Your task to perform on an android device: Is it going to rain tomorrow? Image 0: 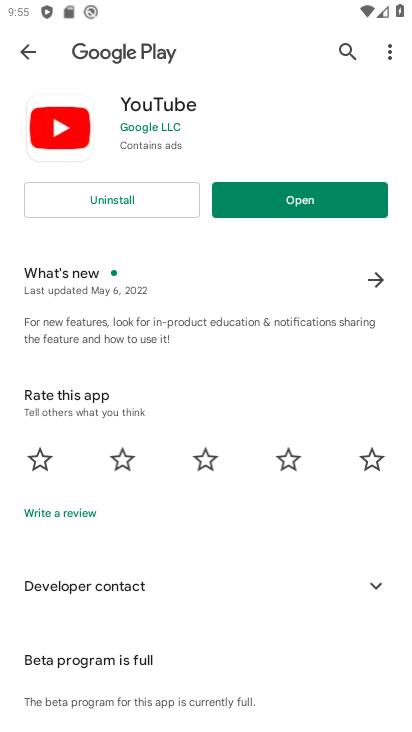
Step 0: press home button
Your task to perform on an android device: Is it going to rain tomorrow? Image 1: 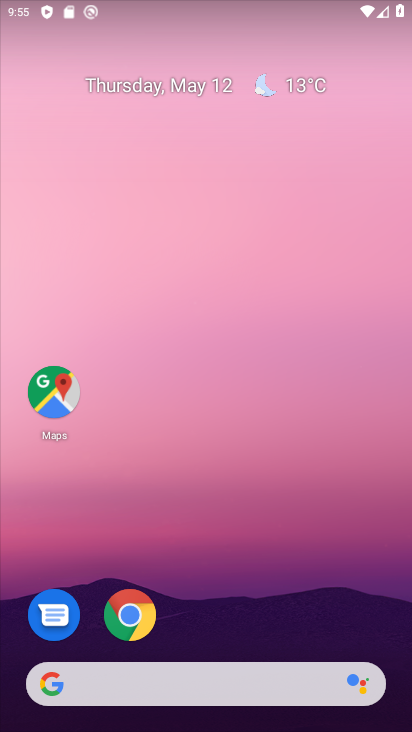
Step 1: drag from (288, 561) to (295, 8)
Your task to perform on an android device: Is it going to rain tomorrow? Image 2: 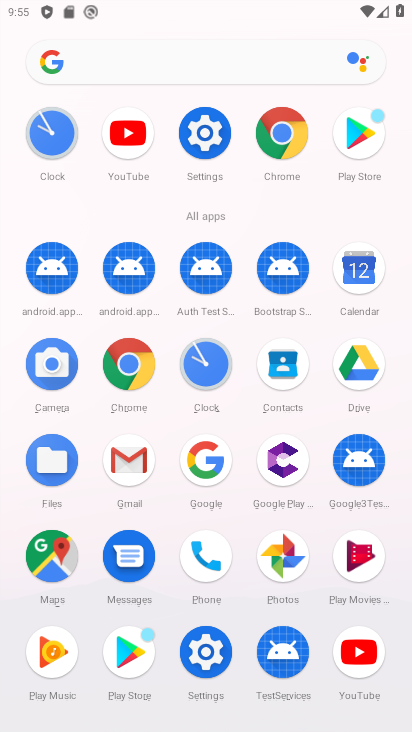
Step 2: press home button
Your task to perform on an android device: Is it going to rain tomorrow? Image 3: 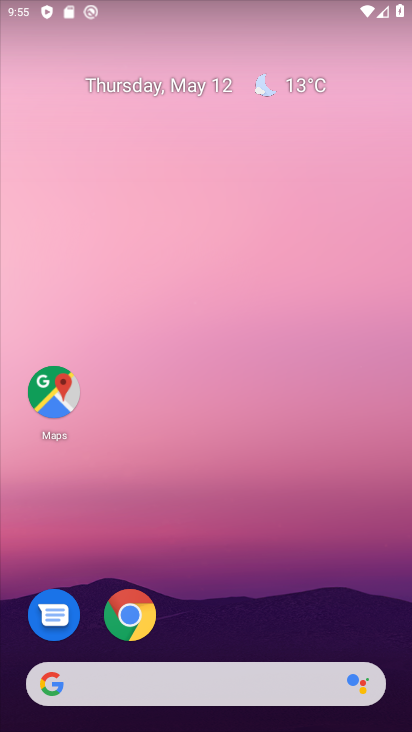
Step 3: click (320, 85)
Your task to perform on an android device: Is it going to rain tomorrow? Image 4: 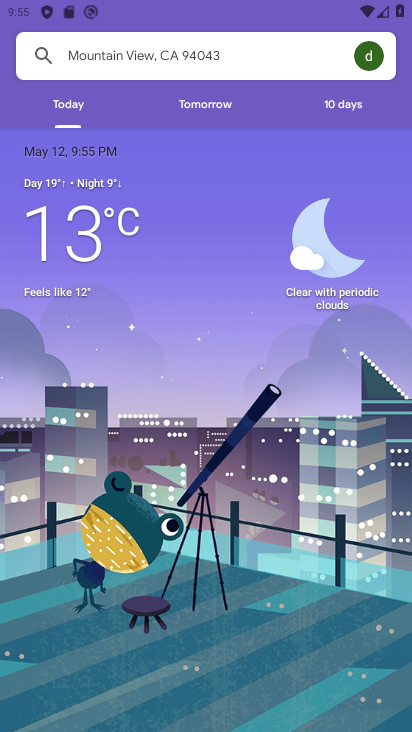
Step 4: task complete